Your task to perform on an android device: turn off location Image 0: 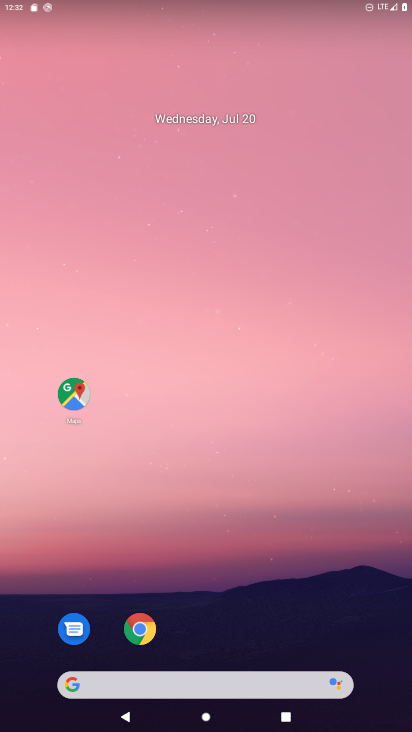
Step 0: drag from (195, 588) to (195, 195)
Your task to perform on an android device: turn off location Image 1: 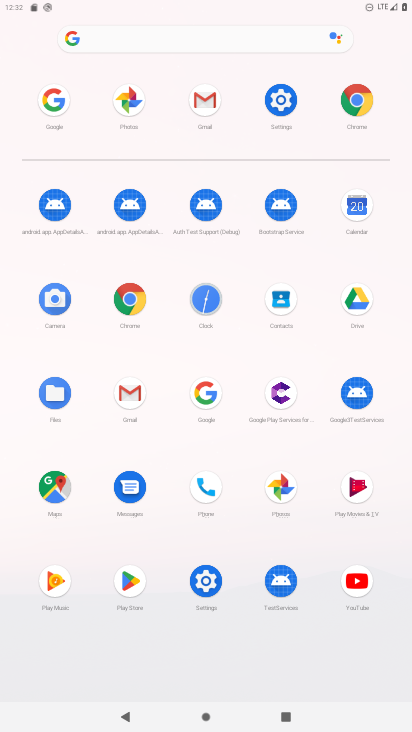
Step 1: click (287, 96)
Your task to perform on an android device: turn off location Image 2: 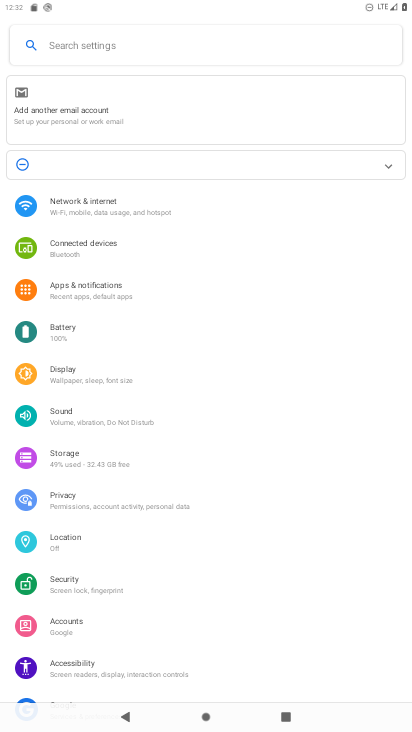
Step 2: click (41, 549)
Your task to perform on an android device: turn off location Image 3: 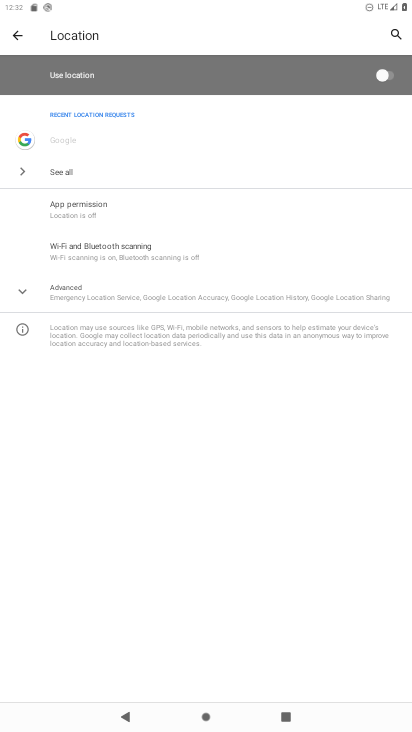
Step 3: task complete